Your task to perform on an android device: see tabs open on other devices in the chrome app Image 0: 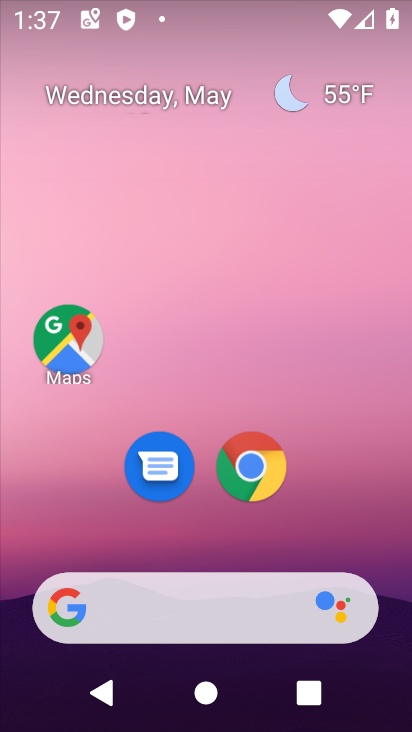
Step 0: click (244, 463)
Your task to perform on an android device: see tabs open on other devices in the chrome app Image 1: 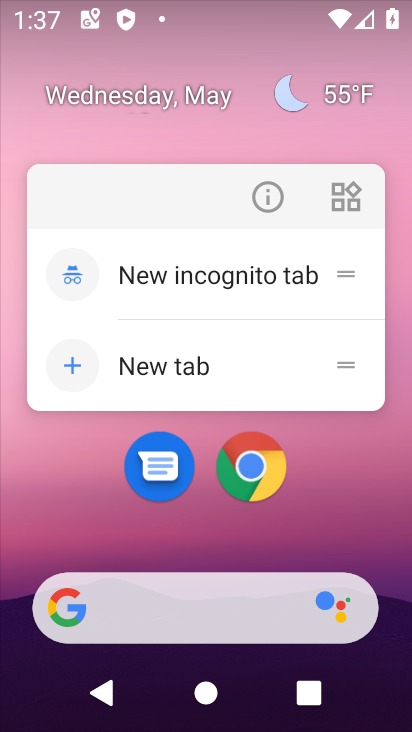
Step 1: click (243, 463)
Your task to perform on an android device: see tabs open on other devices in the chrome app Image 2: 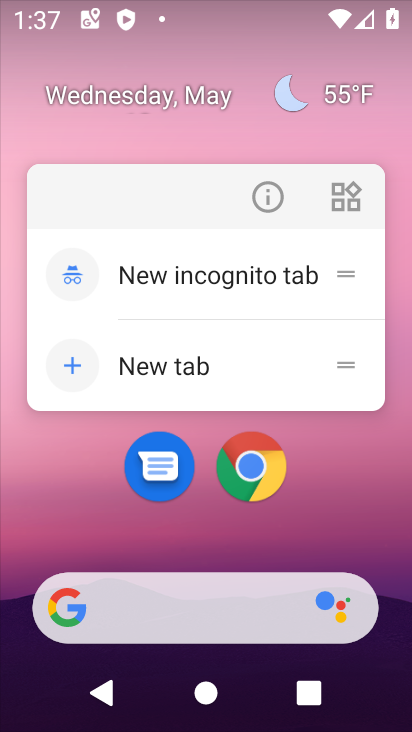
Step 2: click (244, 463)
Your task to perform on an android device: see tabs open on other devices in the chrome app Image 3: 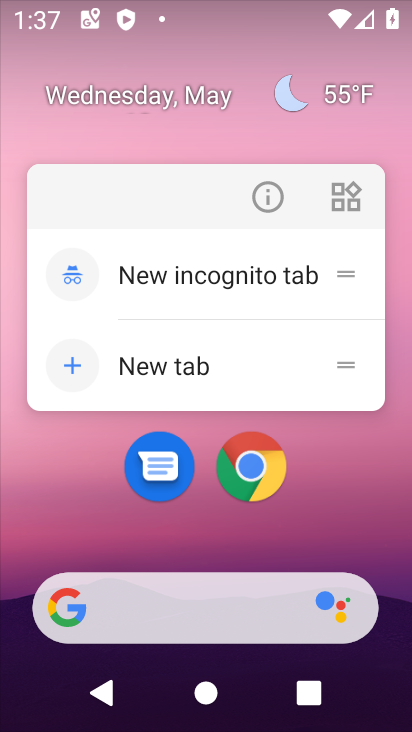
Step 3: click (250, 432)
Your task to perform on an android device: see tabs open on other devices in the chrome app Image 4: 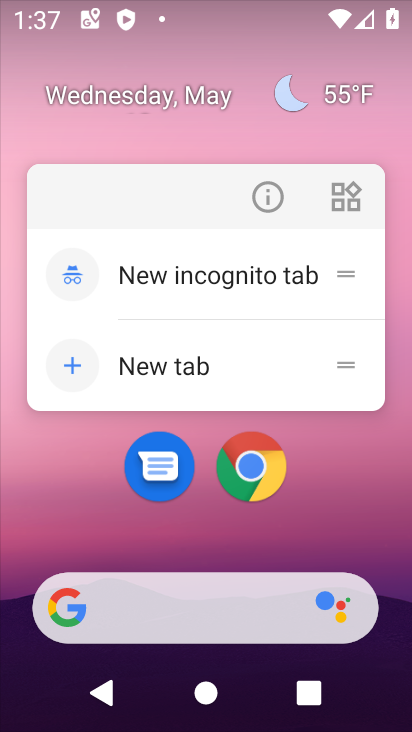
Step 4: click (269, 478)
Your task to perform on an android device: see tabs open on other devices in the chrome app Image 5: 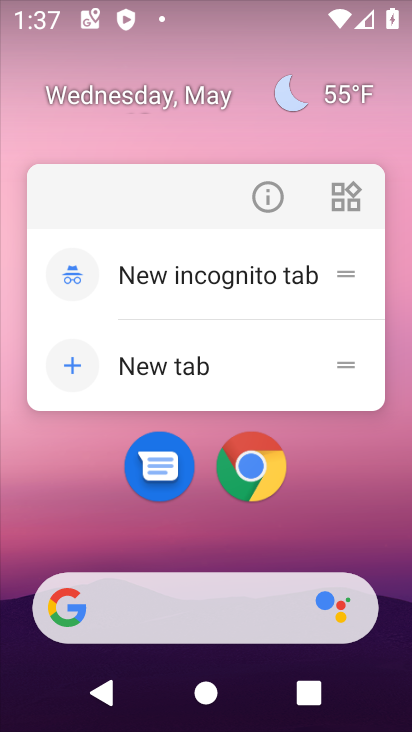
Step 5: click (268, 471)
Your task to perform on an android device: see tabs open on other devices in the chrome app Image 6: 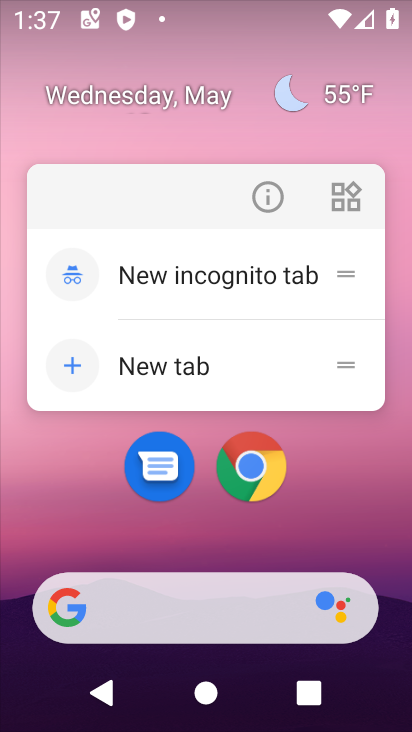
Step 6: click (263, 460)
Your task to perform on an android device: see tabs open on other devices in the chrome app Image 7: 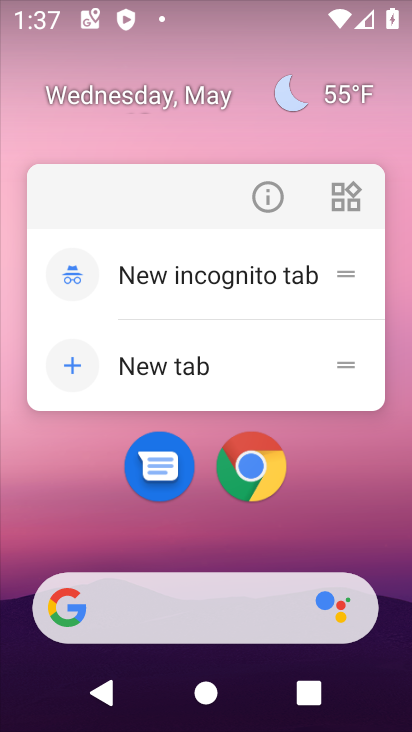
Step 7: click (246, 476)
Your task to perform on an android device: see tabs open on other devices in the chrome app Image 8: 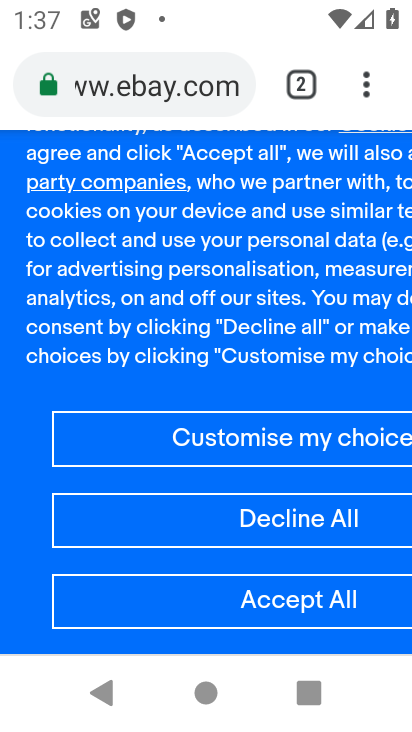
Step 8: click (357, 93)
Your task to perform on an android device: see tabs open on other devices in the chrome app Image 9: 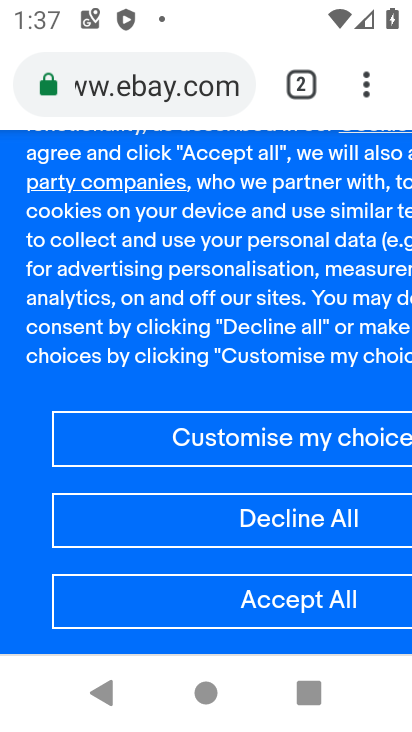
Step 9: click (357, 93)
Your task to perform on an android device: see tabs open on other devices in the chrome app Image 10: 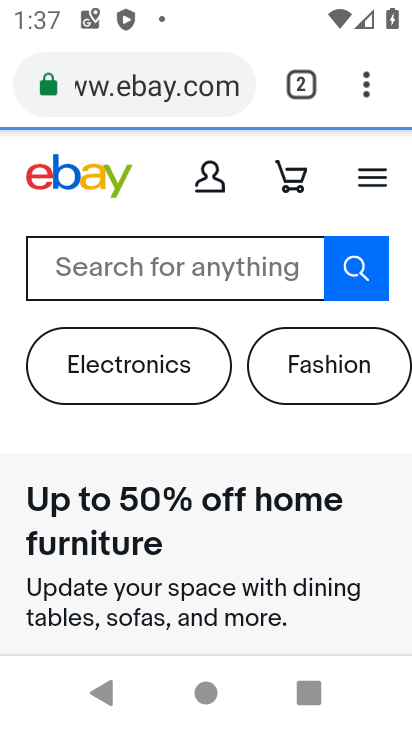
Step 10: click (377, 105)
Your task to perform on an android device: see tabs open on other devices in the chrome app Image 11: 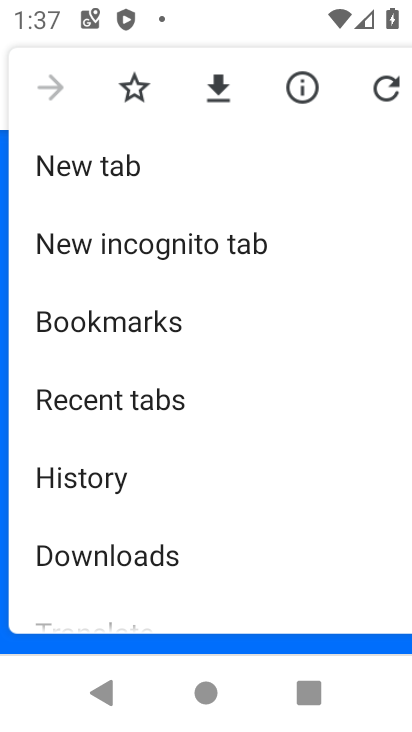
Step 11: click (119, 389)
Your task to perform on an android device: see tabs open on other devices in the chrome app Image 12: 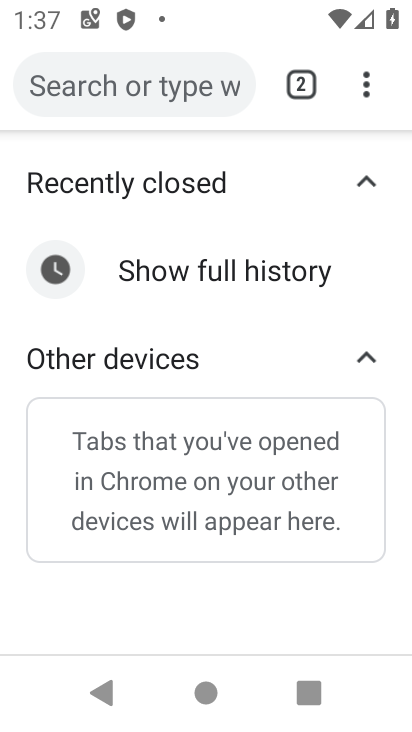
Step 12: task complete